Your task to perform on an android device: turn smart compose on in the gmail app Image 0: 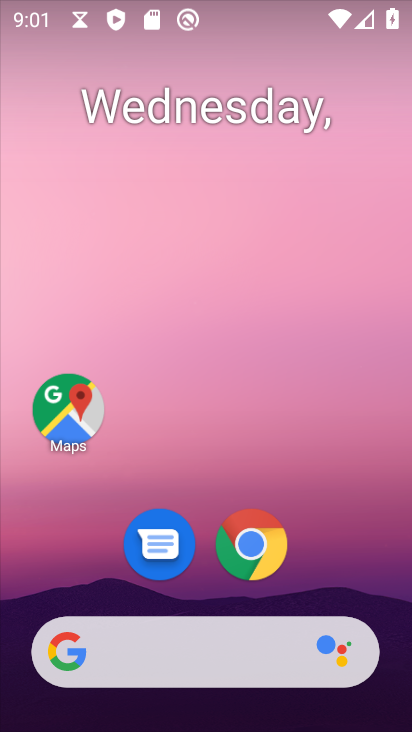
Step 0: drag from (191, 658) to (339, 52)
Your task to perform on an android device: turn smart compose on in the gmail app Image 1: 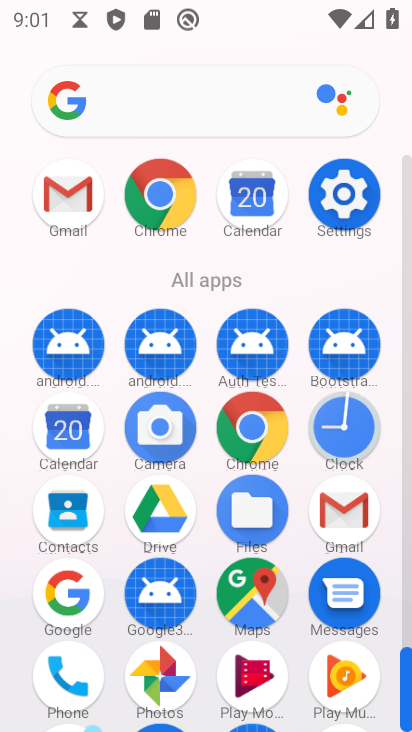
Step 1: click (68, 207)
Your task to perform on an android device: turn smart compose on in the gmail app Image 2: 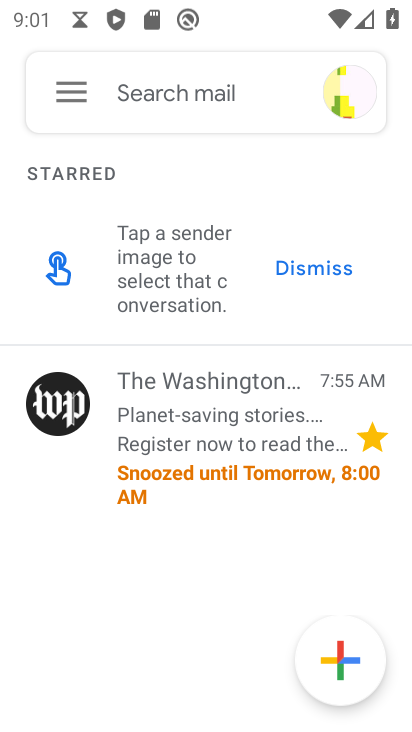
Step 2: click (75, 100)
Your task to perform on an android device: turn smart compose on in the gmail app Image 3: 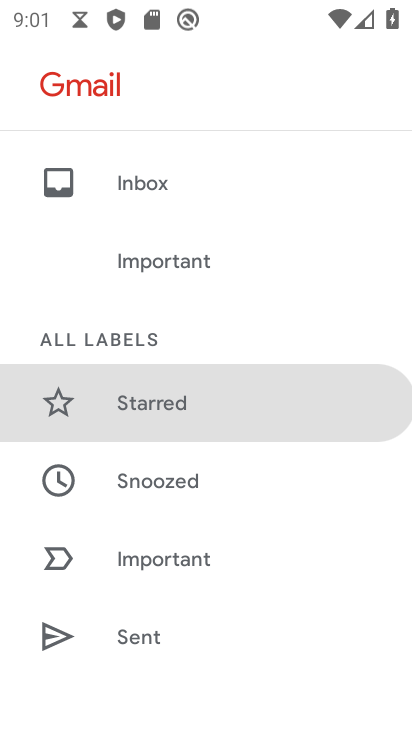
Step 3: drag from (241, 640) to (362, 84)
Your task to perform on an android device: turn smart compose on in the gmail app Image 4: 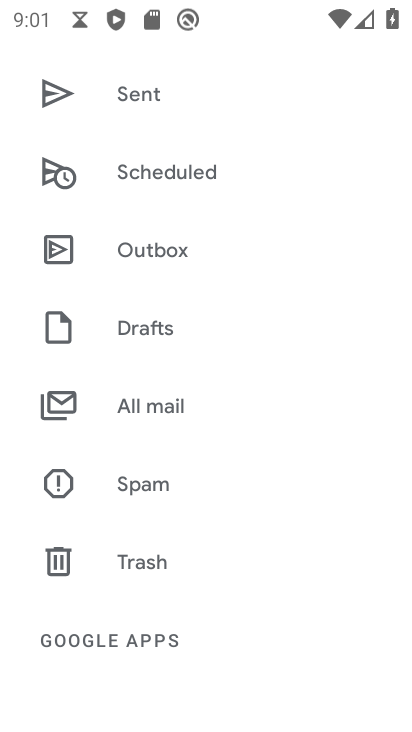
Step 4: drag from (225, 546) to (305, 81)
Your task to perform on an android device: turn smart compose on in the gmail app Image 5: 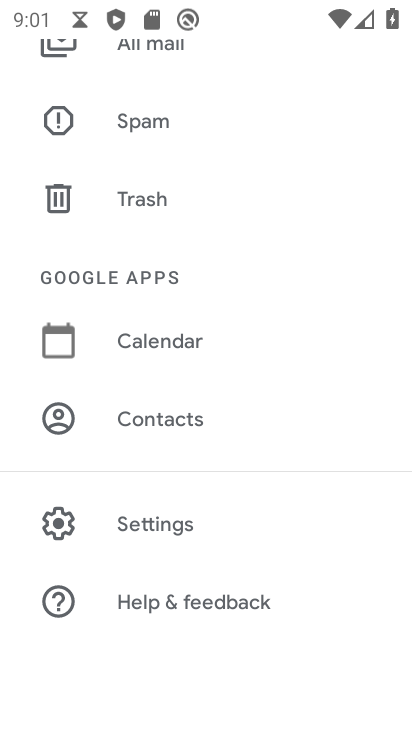
Step 5: click (149, 521)
Your task to perform on an android device: turn smart compose on in the gmail app Image 6: 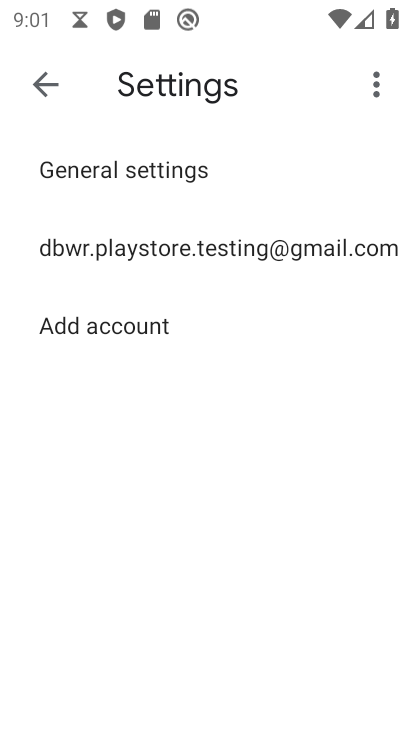
Step 6: click (250, 245)
Your task to perform on an android device: turn smart compose on in the gmail app Image 7: 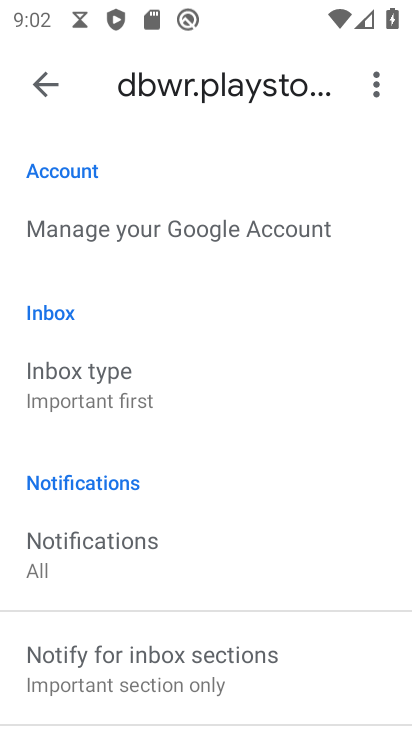
Step 7: task complete